Your task to perform on an android device: turn on airplane mode Image 0: 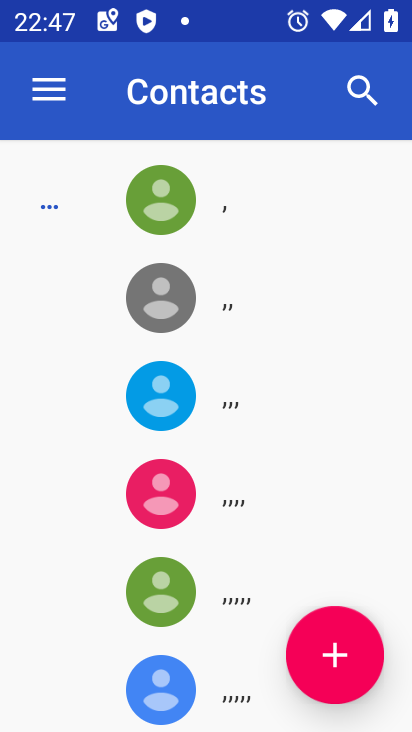
Step 0: press home button
Your task to perform on an android device: turn on airplane mode Image 1: 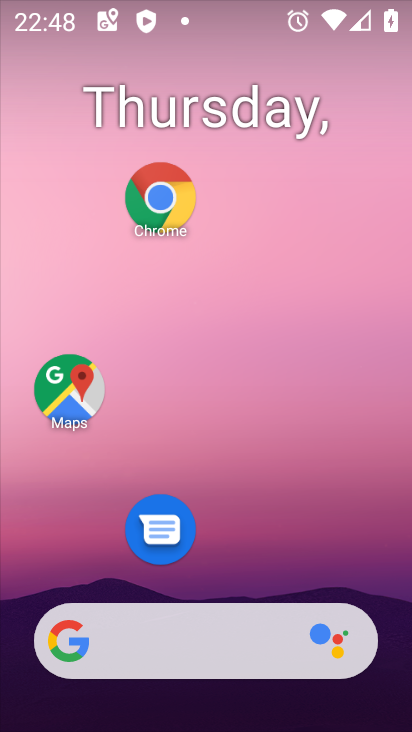
Step 1: drag from (268, 480) to (215, 115)
Your task to perform on an android device: turn on airplane mode Image 2: 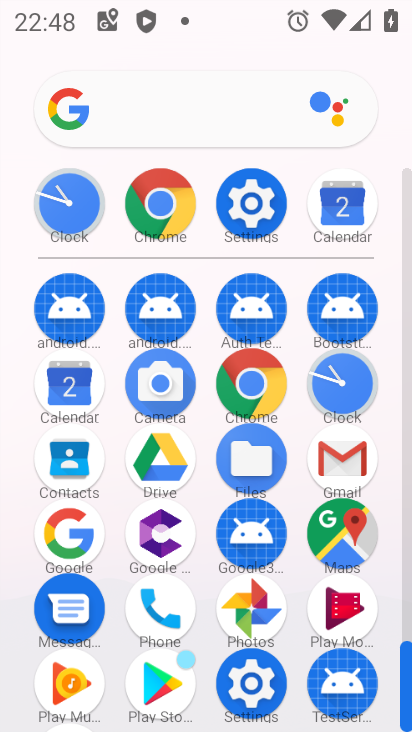
Step 2: click (253, 205)
Your task to perform on an android device: turn on airplane mode Image 3: 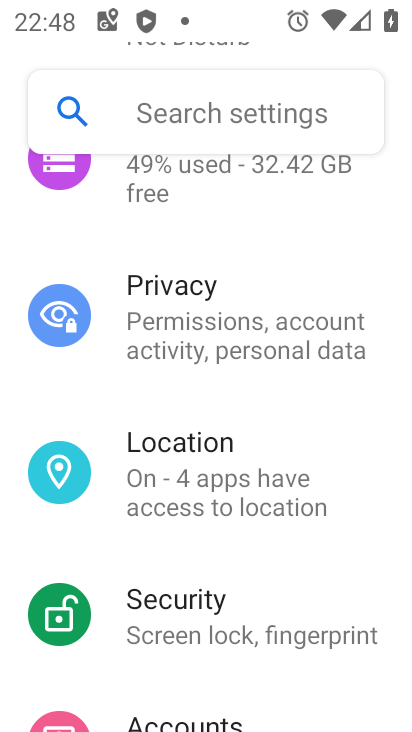
Step 3: drag from (217, 239) to (201, 558)
Your task to perform on an android device: turn on airplane mode Image 4: 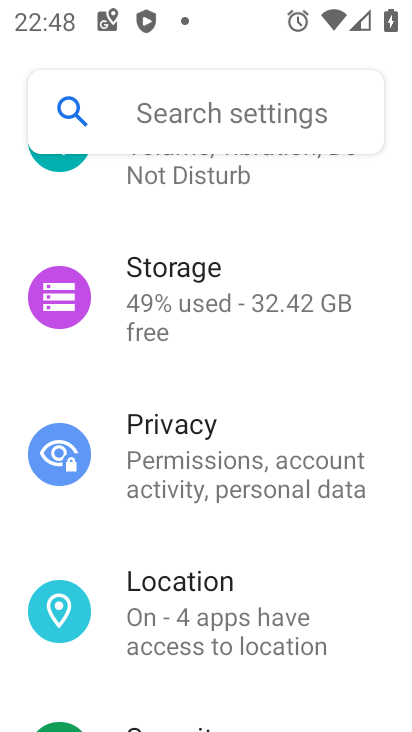
Step 4: drag from (196, 227) to (165, 583)
Your task to perform on an android device: turn on airplane mode Image 5: 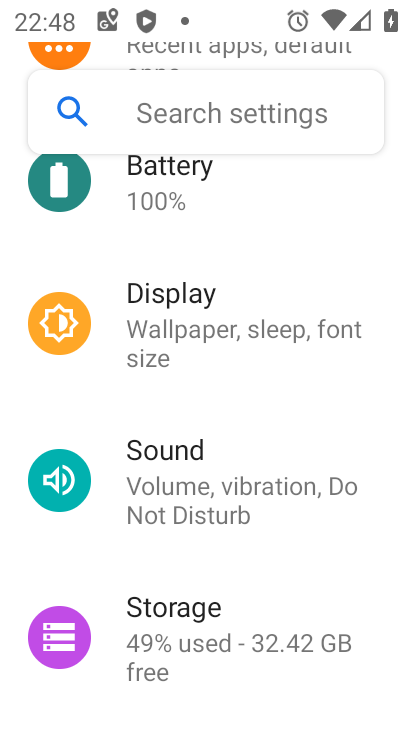
Step 5: drag from (200, 248) to (149, 691)
Your task to perform on an android device: turn on airplane mode Image 6: 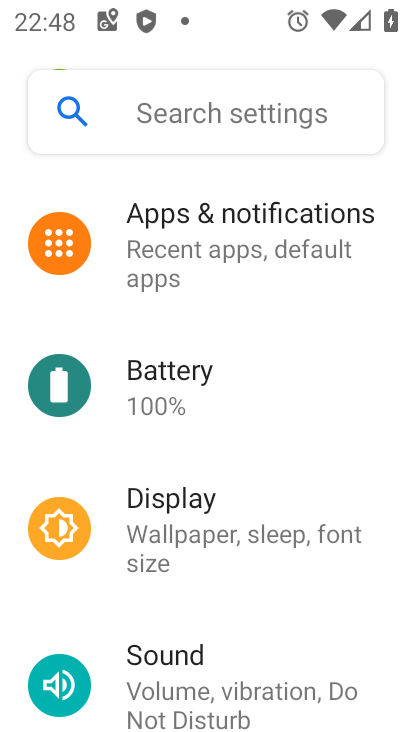
Step 6: drag from (192, 324) to (175, 717)
Your task to perform on an android device: turn on airplane mode Image 7: 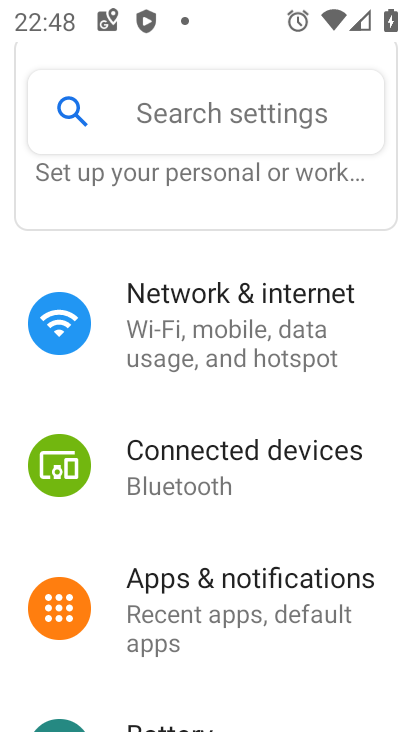
Step 7: click (218, 302)
Your task to perform on an android device: turn on airplane mode Image 8: 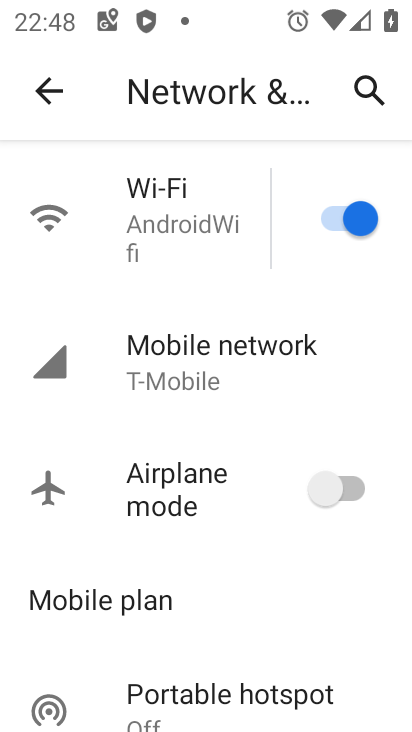
Step 8: drag from (222, 571) to (208, 351)
Your task to perform on an android device: turn on airplane mode Image 9: 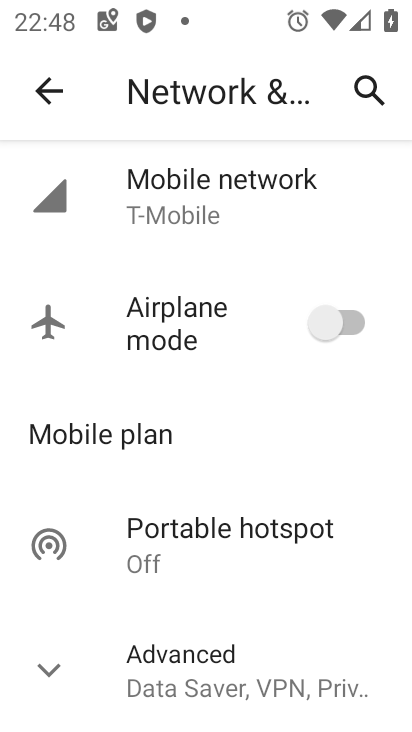
Step 9: click (334, 325)
Your task to perform on an android device: turn on airplane mode Image 10: 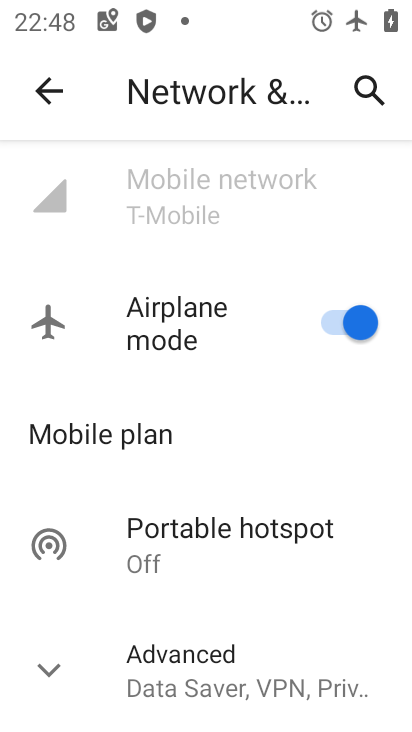
Step 10: task complete